Your task to perform on an android device: Toggle the flashlight Image 0: 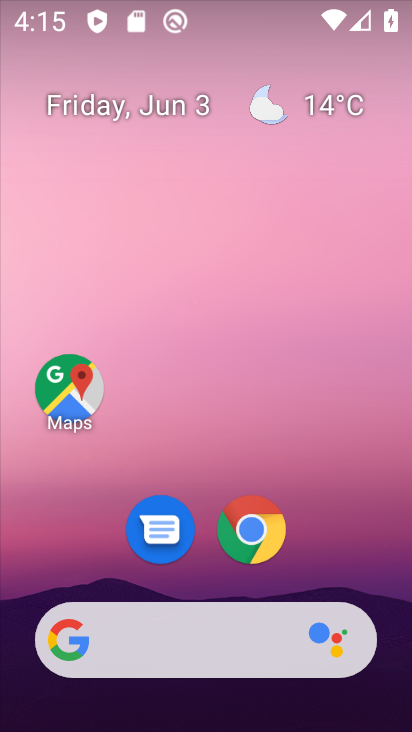
Step 0: drag from (382, 340) to (368, 51)
Your task to perform on an android device: Toggle the flashlight Image 1: 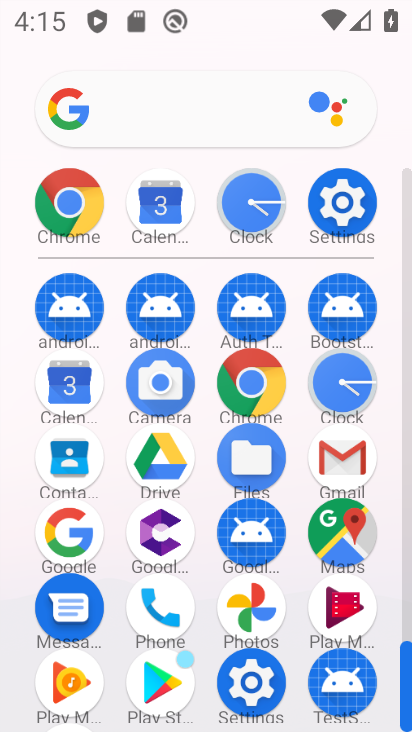
Step 1: click (340, 200)
Your task to perform on an android device: Toggle the flashlight Image 2: 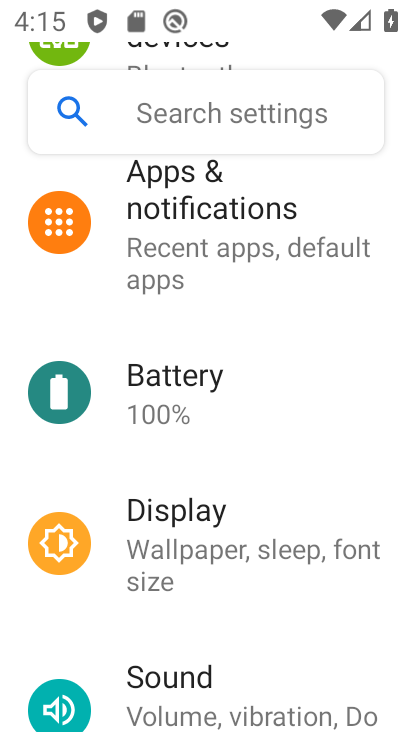
Step 2: task complete